Your task to perform on an android device: Go to Amazon Image 0: 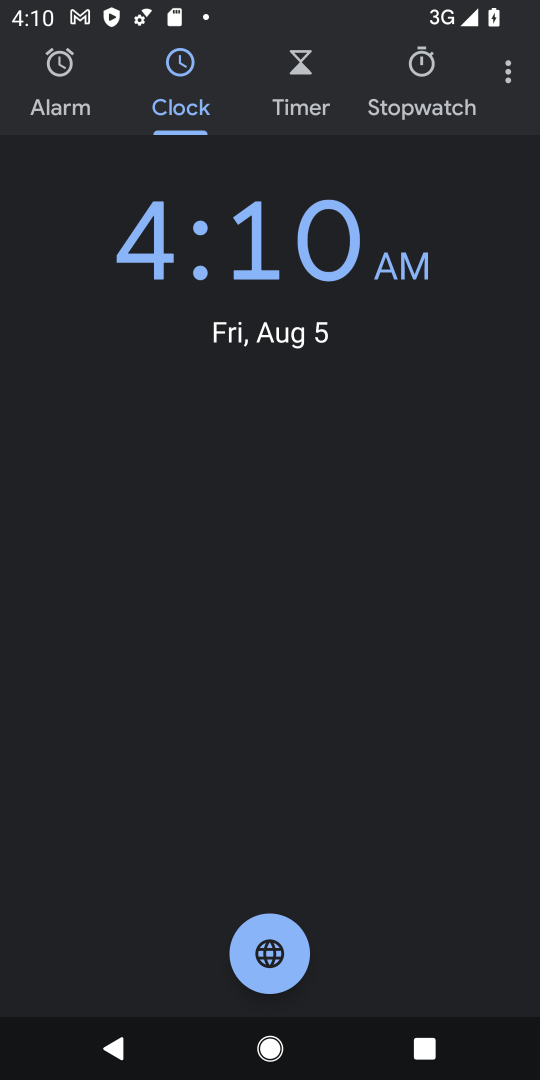
Step 0: press home button
Your task to perform on an android device: Go to Amazon Image 1: 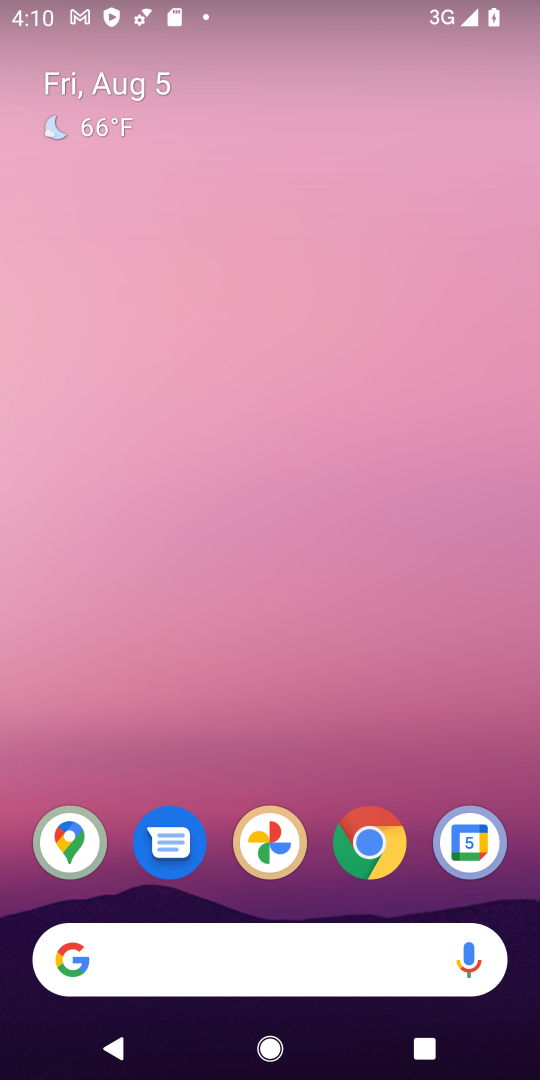
Step 1: click (359, 831)
Your task to perform on an android device: Go to Amazon Image 2: 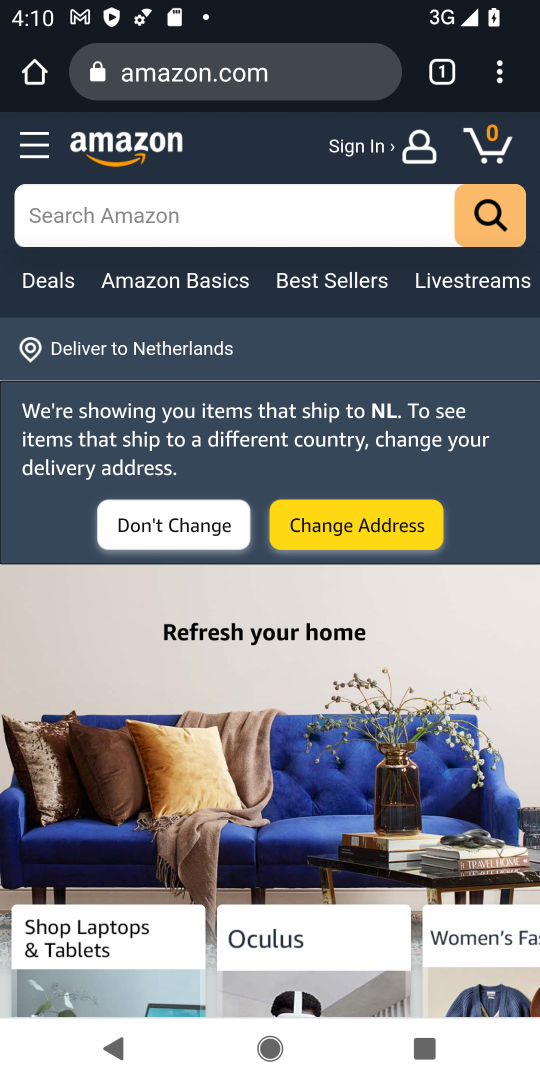
Step 2: task complete